Your task to perform on an android device: Open Google Maps and go to "Timeline" Image 0: 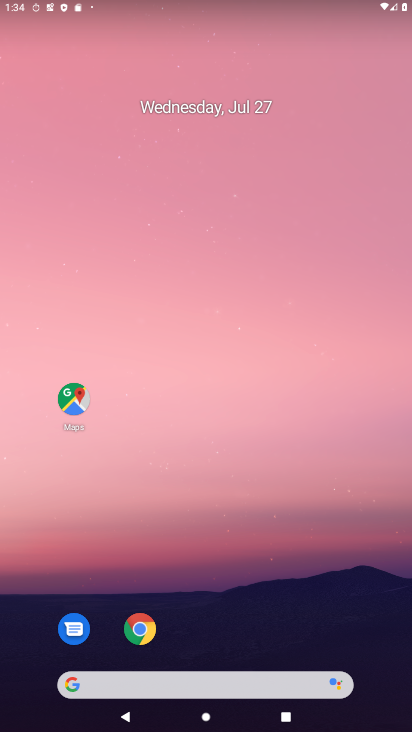
Step 0: drag from (370, 653) to (244, 82)
Your task to perform on an android device: Open Google Maps and go to "Timeline" Image 1: 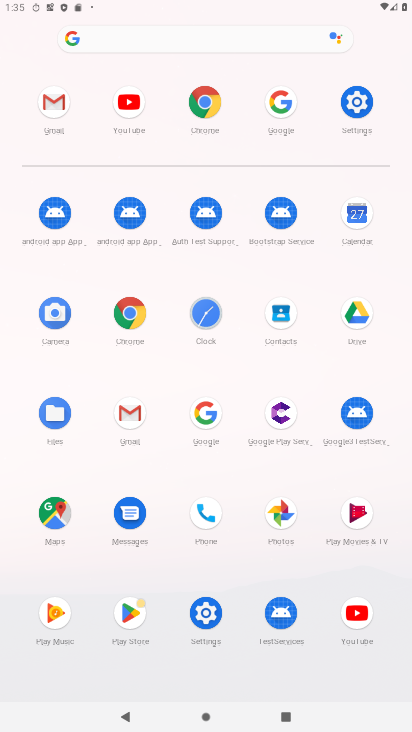
Step 1: click (51, 528)
Your task to perform on an android device: Open Google Maps and go to "Timeline" Image 2: 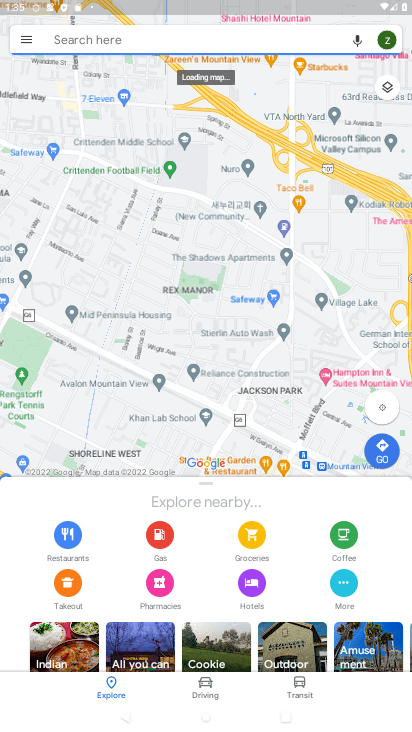
Step 2: click (28, 37)
Your task to perform on an android device: Open Google Maps and go to "Timeline" Image 3: 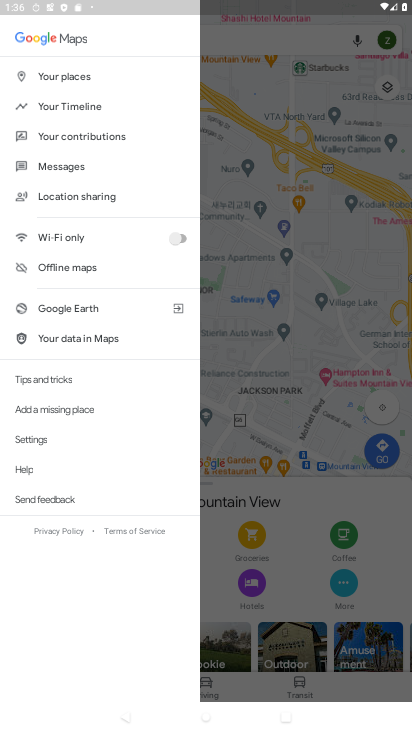
Step 3: click (46, 97)
Your task to perform on an android device: Open Google Maps and go to "Timeline" Image 4: 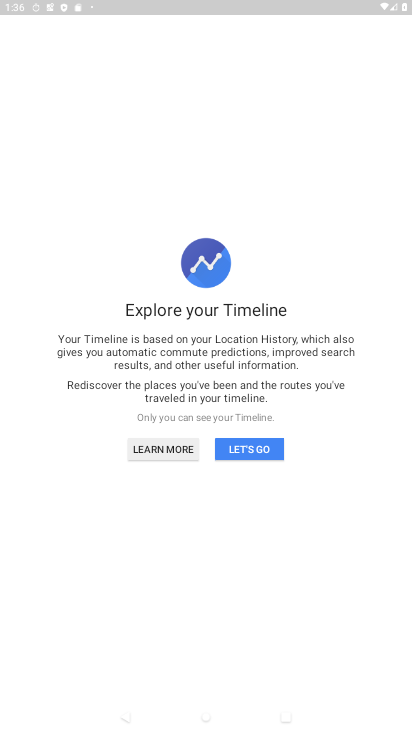
Step 4: task complete